Your task to perform on an android device: Set an alarm for 6pm Image 0: 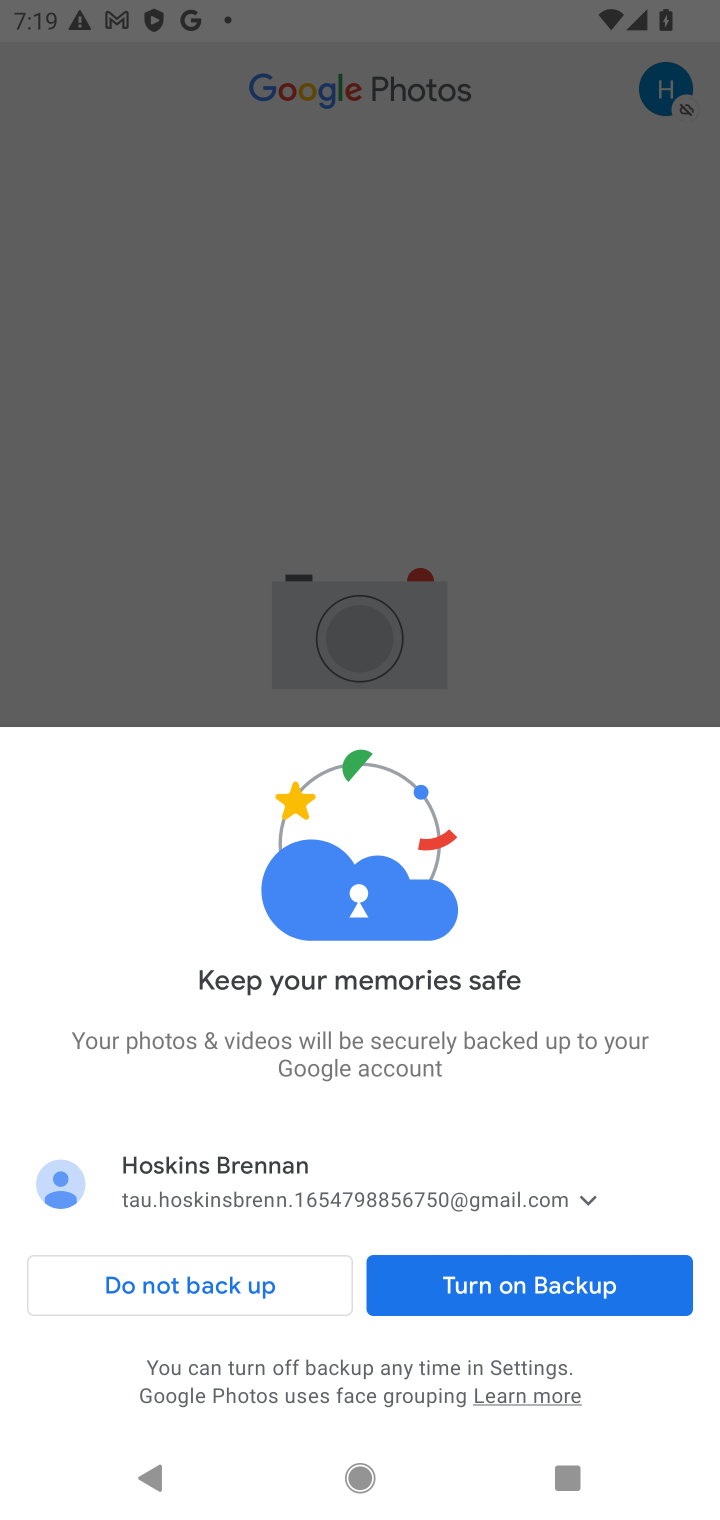
Step 0: press home button
Your task to perform on an android device: Set an alarm for 6pm Image 1: 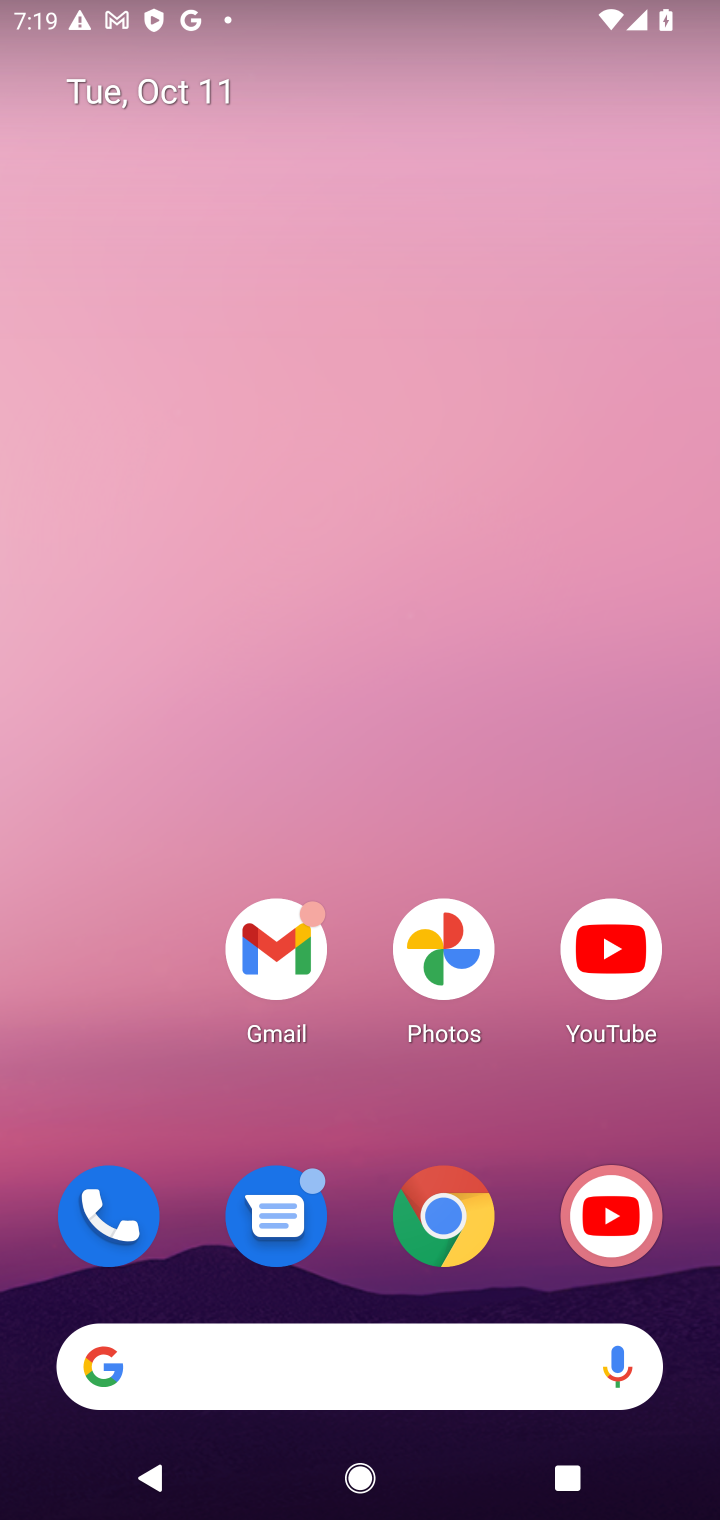
Step 1: drag from (363, 1344) to (438, 98)
Your task to perform on an android device: Set an alarm for 6pm Image 2: 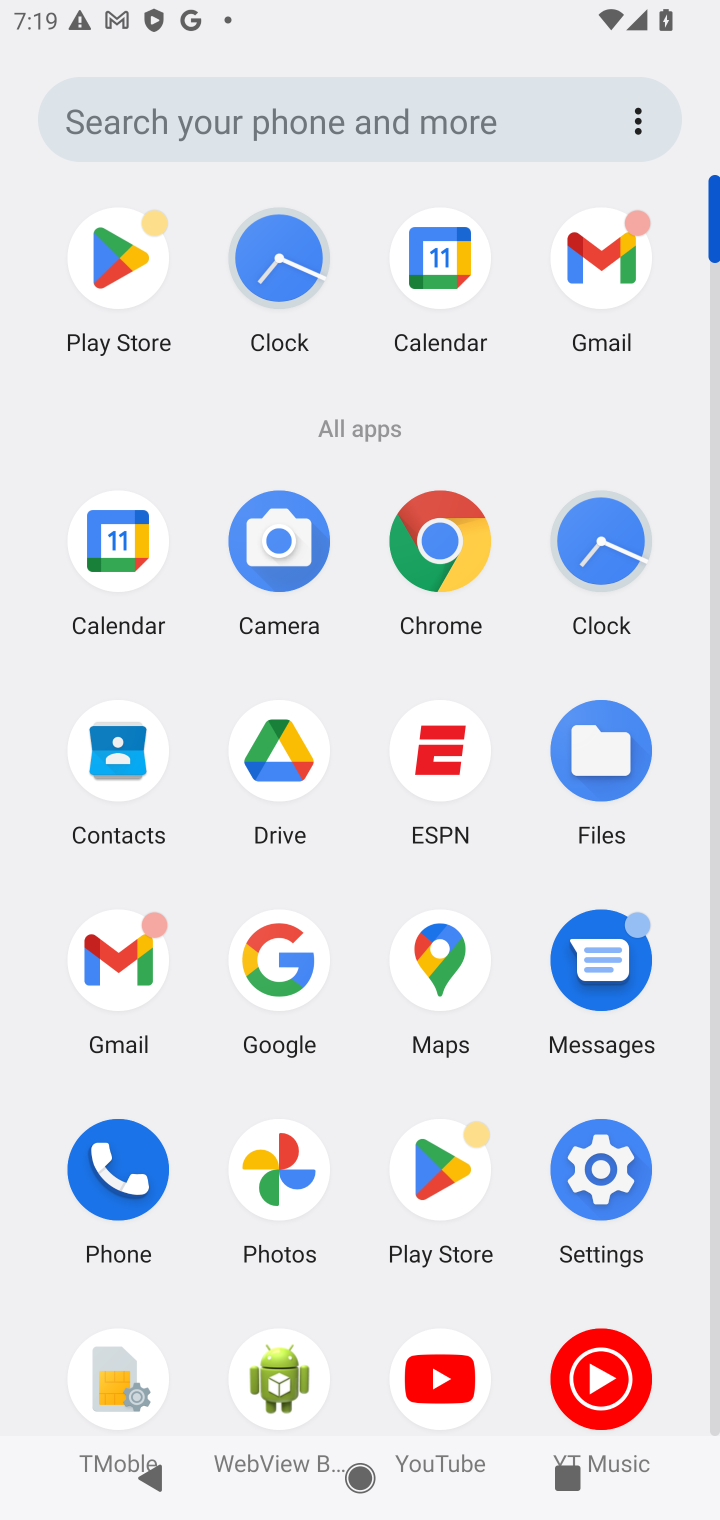
Step 2: click (593, 567)
Your task to perform on an android device: Set an alarm for 6pm Image 3: 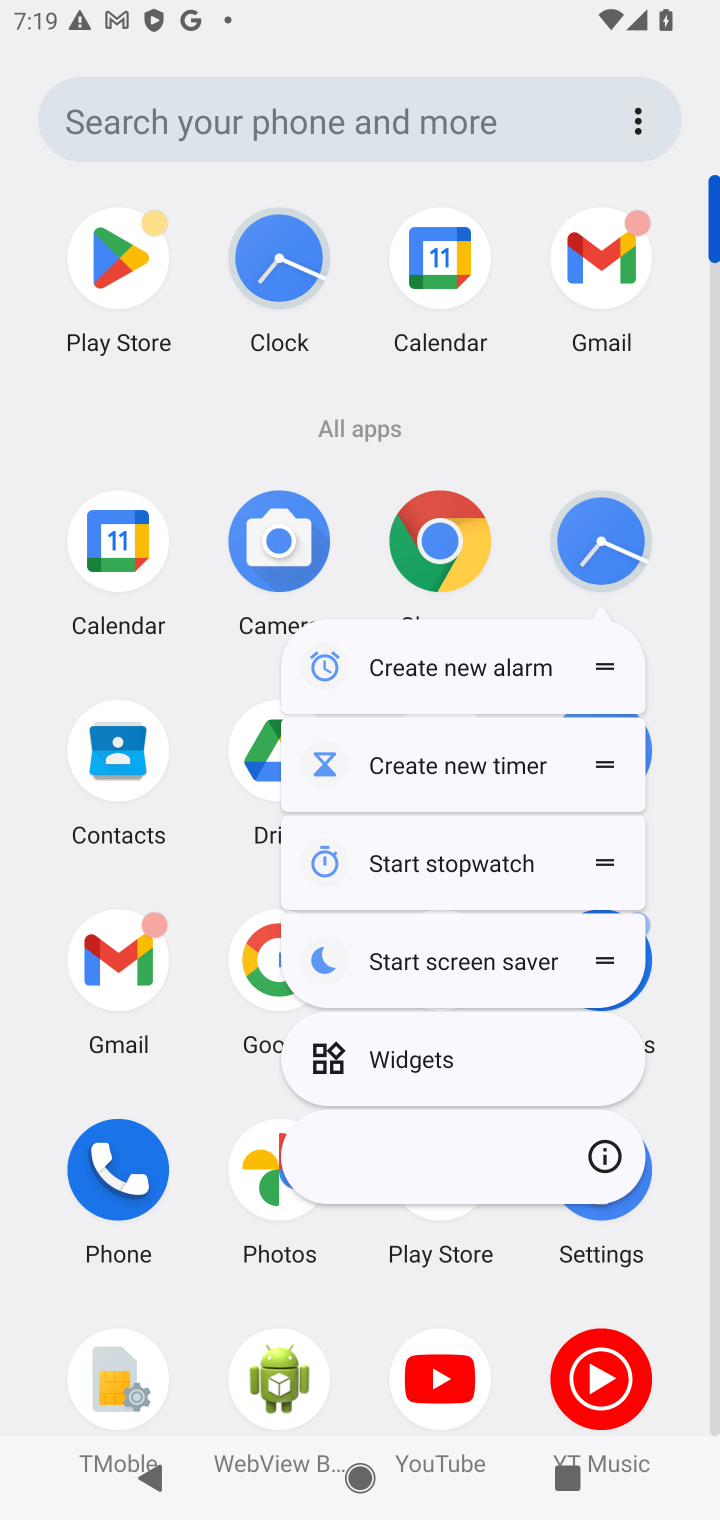
Step 3: click (586, 532)
Your task to perform on an android device: Set an alarm for 6pm Image 4: 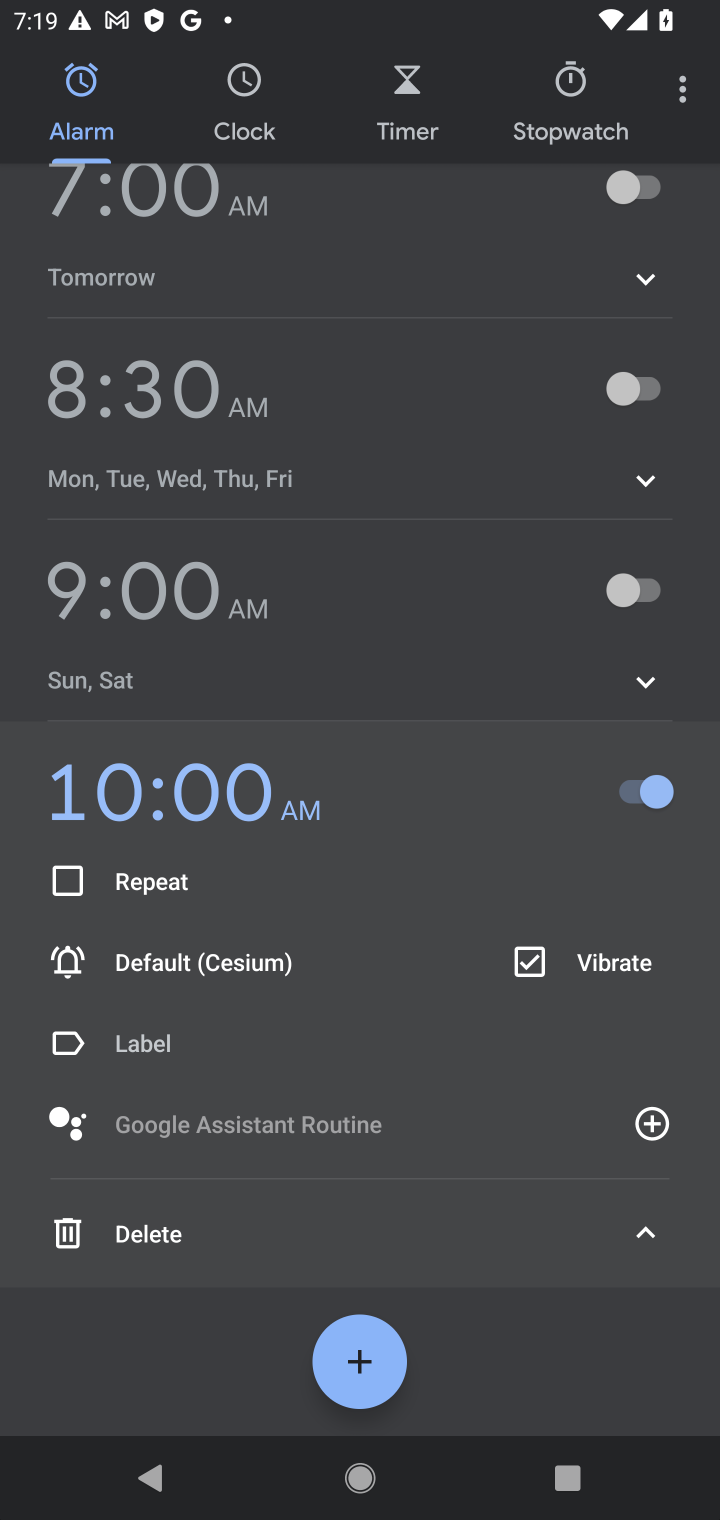
Step 4: click (389, 1364)
Your task to perform on an android device: Set an alarm for 6pm Image 5: 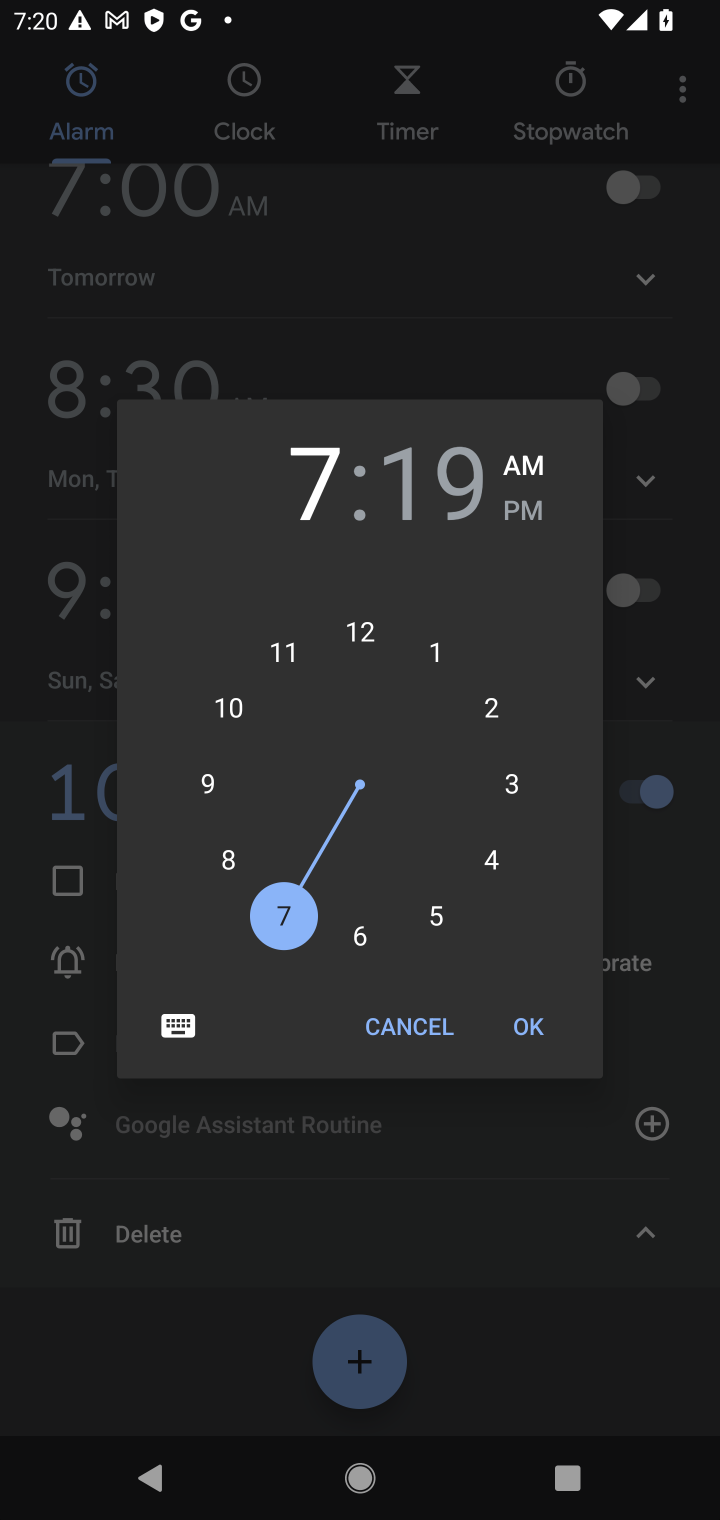
Step 5: click (352, 945)
Your task to perform on an android device: Set an alarm for 6pm Image 6: 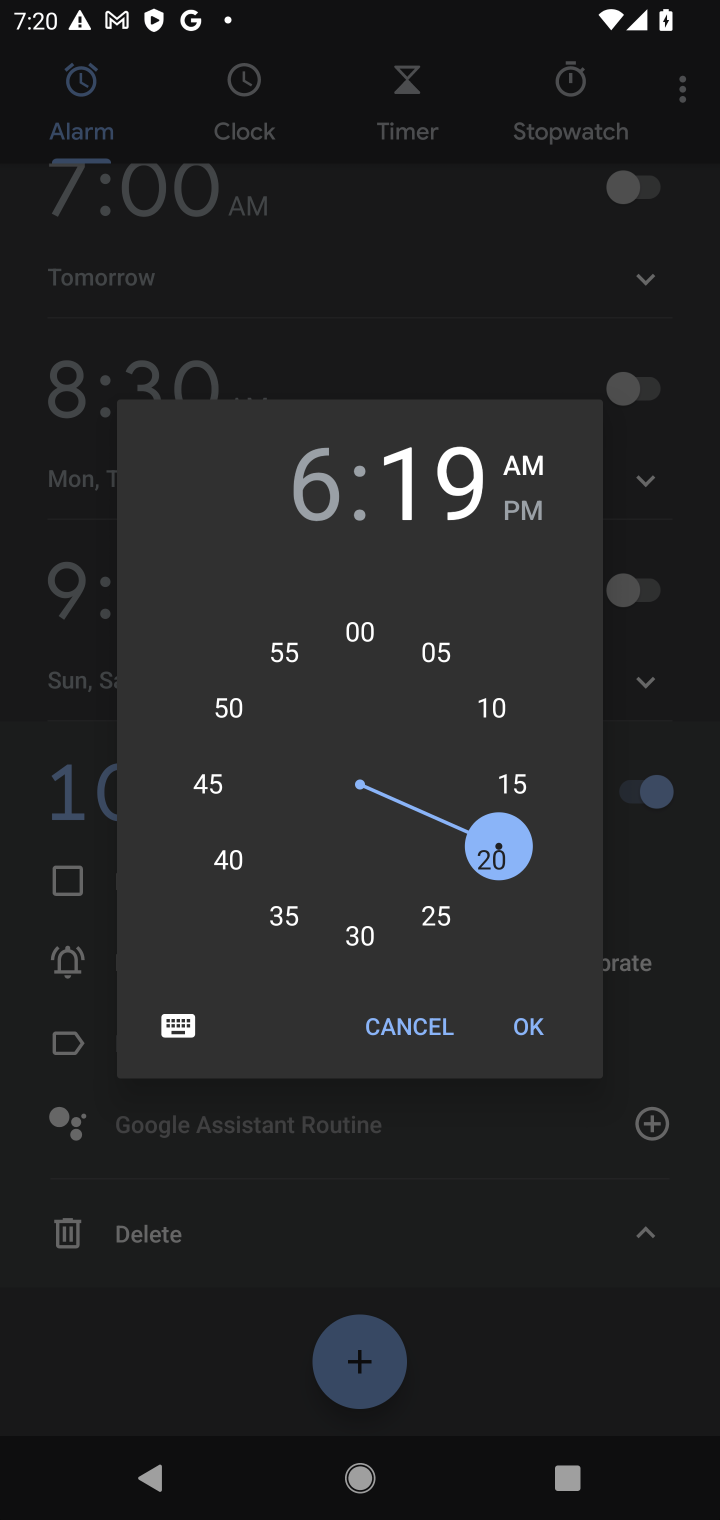
Step 6: click (363, 642)
Your task to perform on an android device: Set an alarm for 6pm Image 7: 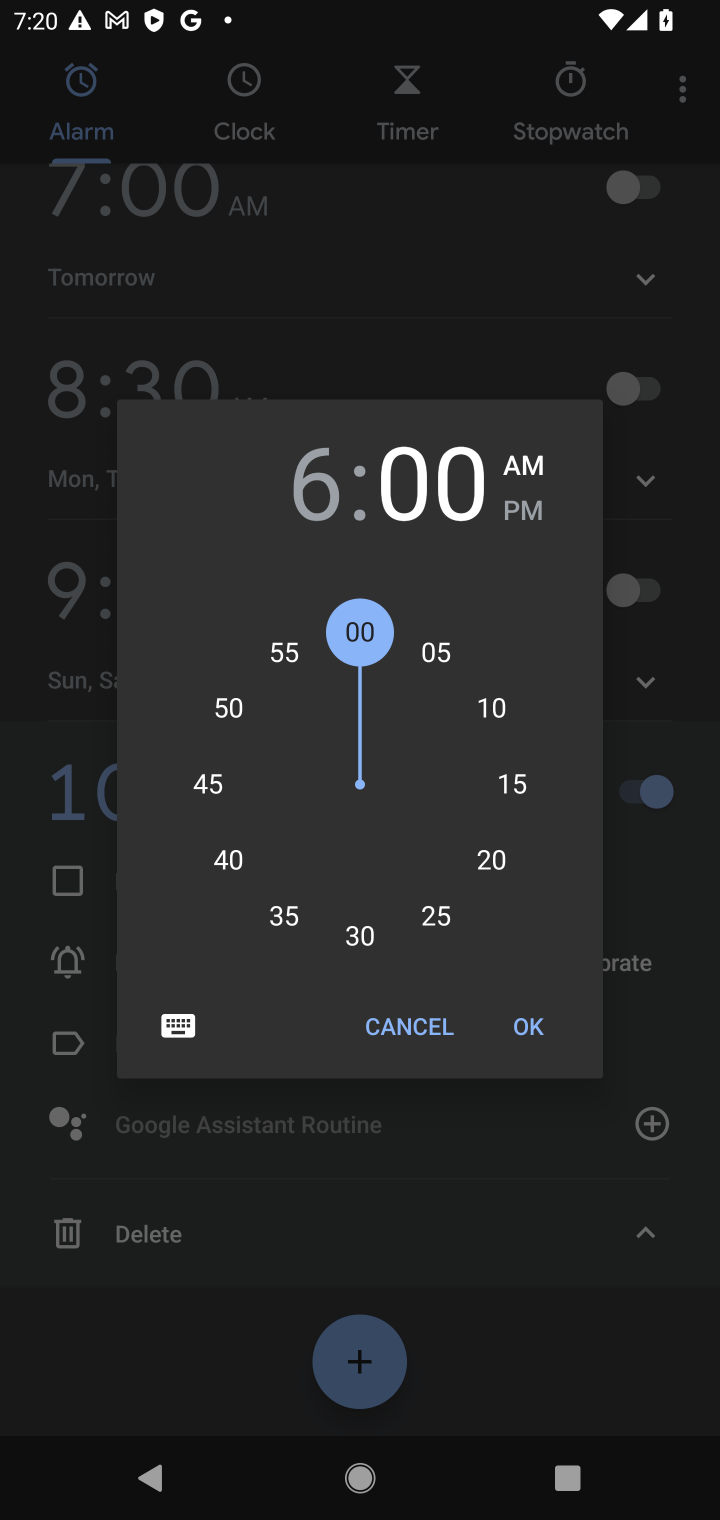
Step 7: click (520, 511)
Your task to perform on an android device: Set an alarm for 6pm Image 8: 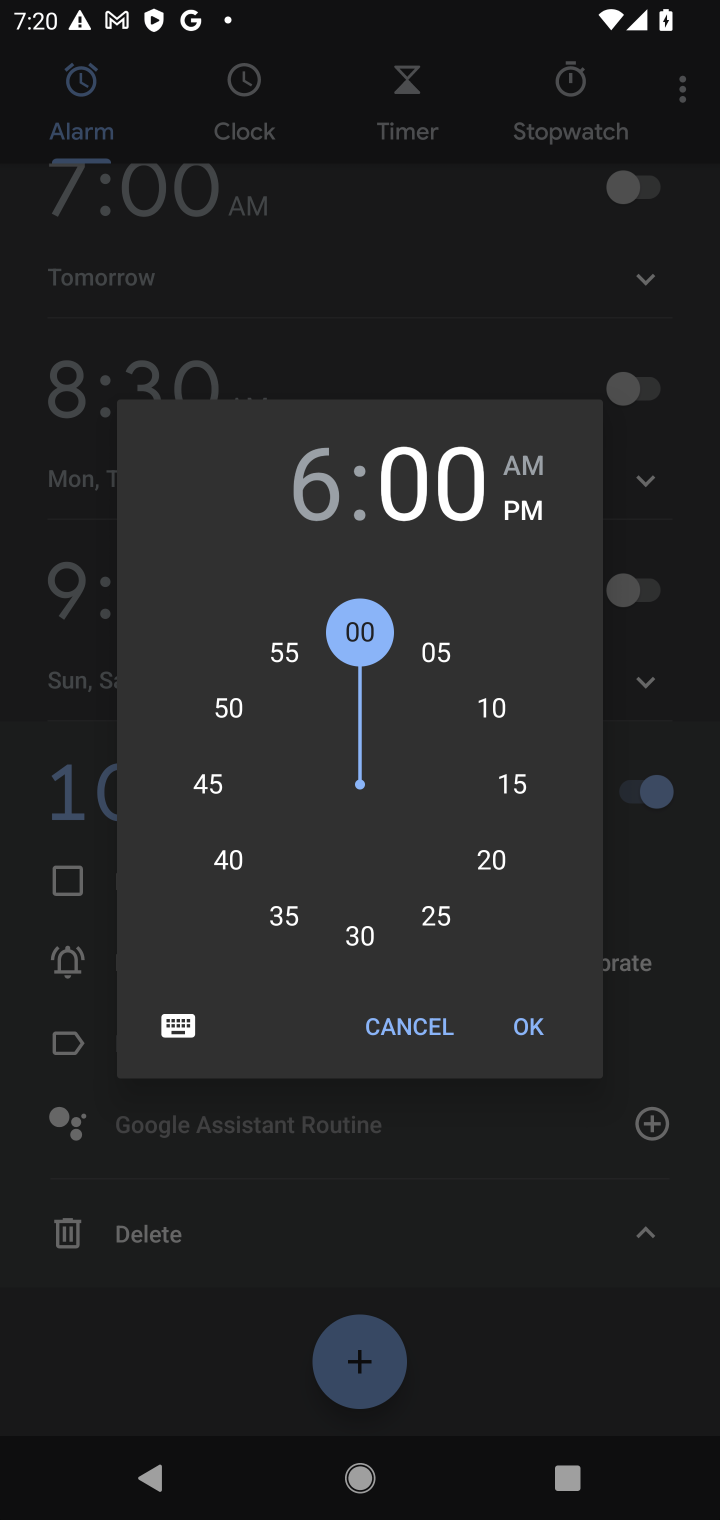
Step 8: click (522, 1027)
Your task to perform on an android device: Set an alarm for 6pm Image 9: 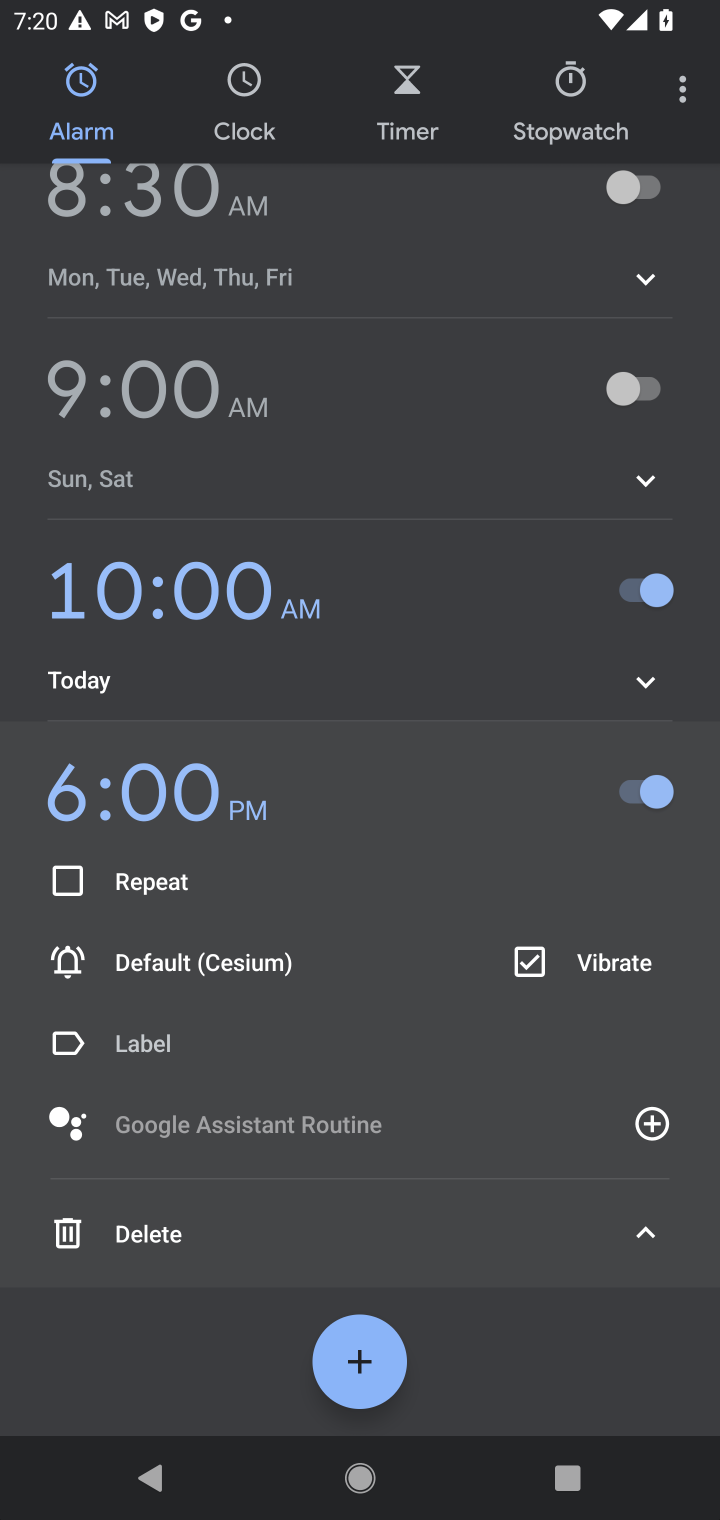
Step 9: task complete